Your task to perform on an android device: Go to calendar. Show me events next week Image 0: 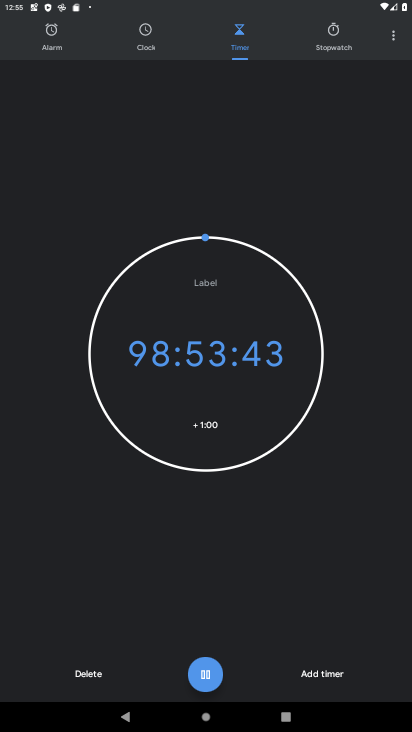
Step 0: press home button
Your task to perform on an android device: Go to calendar. Show me events next week Image 1: 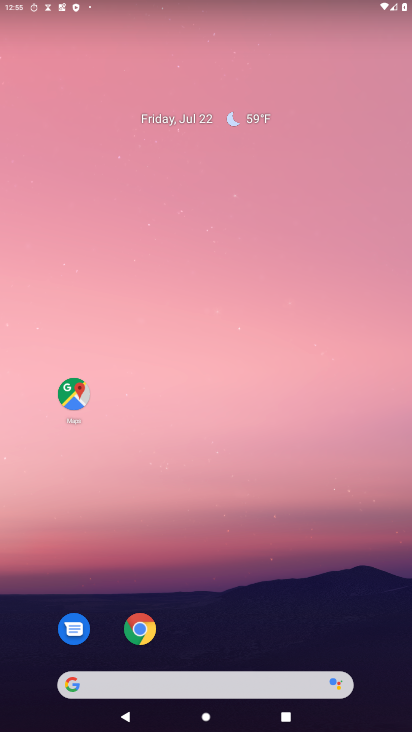
Step 1: drag from (199, 702) to (203, 138)
Your task to perform on an android device: Go to calendar. Show me events next week Image 2: 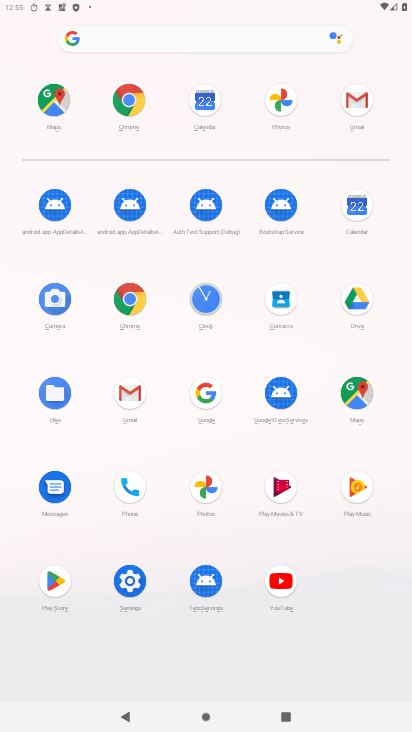
Step 2: click (353, 211)
Your task to perform on an android device: Go to calendar. Show me events next week Image 3: 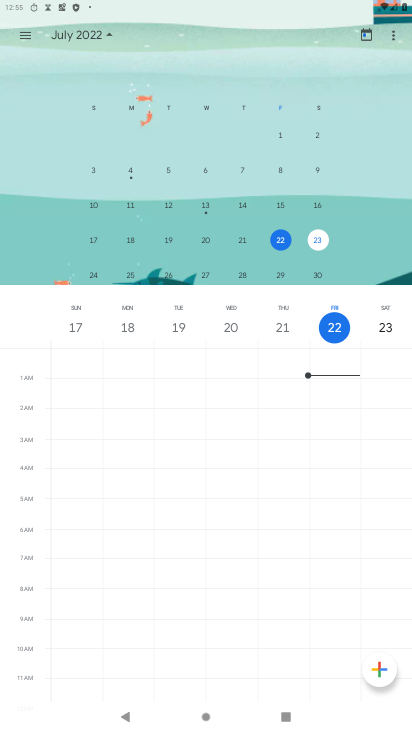
Step 3: click (208, 273)
Your task to perform on an android device: Go to calendar. Show me events next week Image 4: 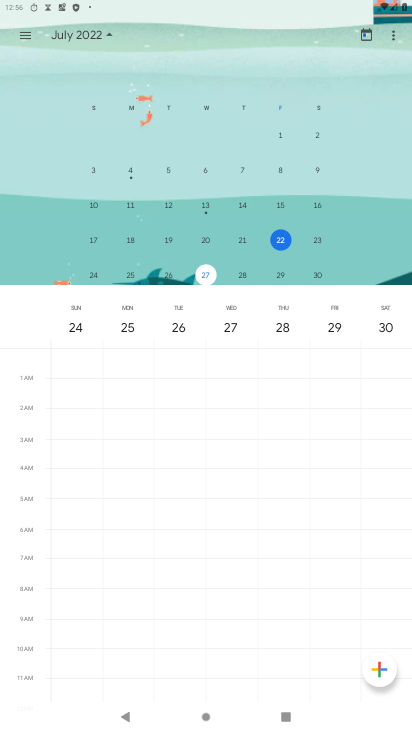
Step 4: task complete